Your task to perform on an android device: What's the weather today? Image 0: 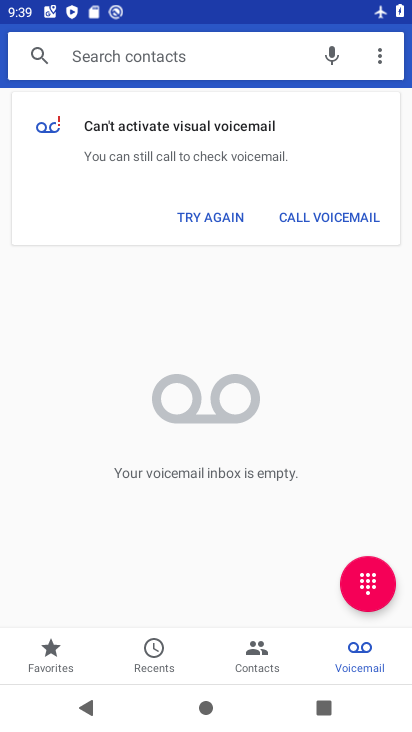
Step 0: press home button
Your task to perform on an android device: What's the weather today? Image 1: 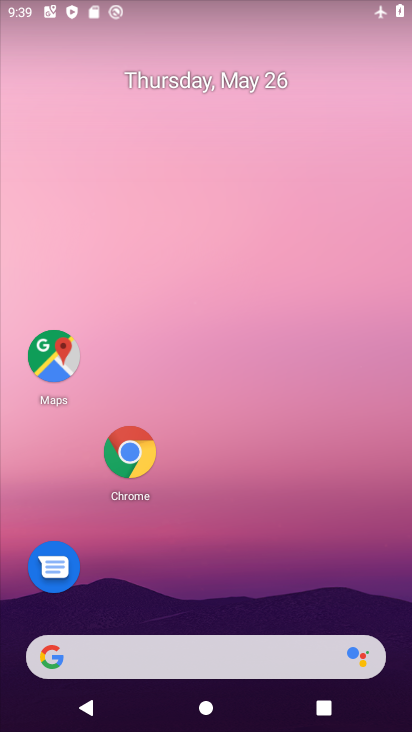
Step 1: click (56, 661)
Your task to perform on an android device: What's the weather today? Image 2: 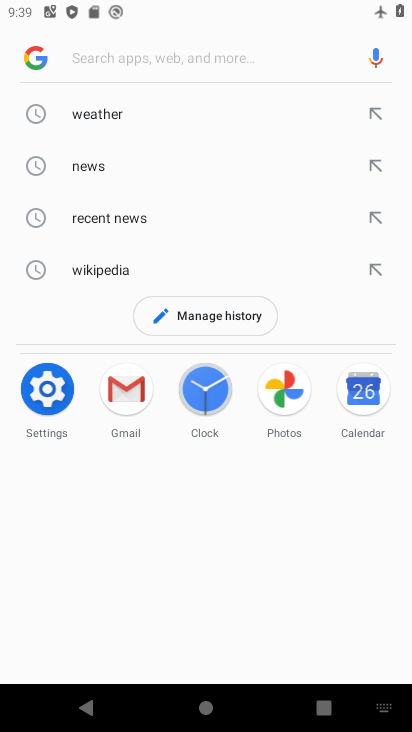
Step 2: click (113, 109)
Your task to perform on an android device: What's the weather today? Image 3: 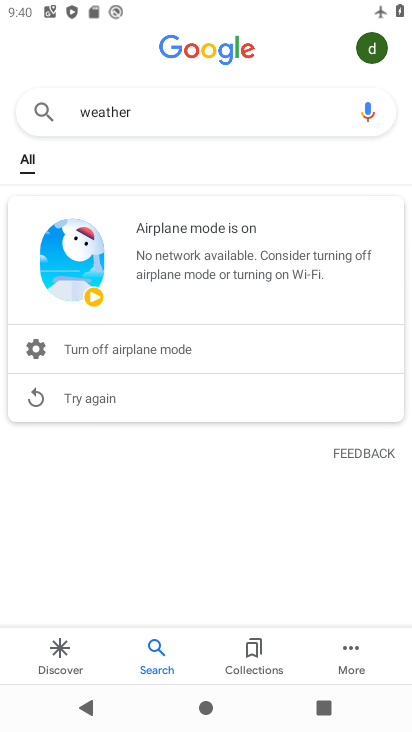
Step 3: press home button
Your task to perform on an android device: What's the weather today? Image 4: 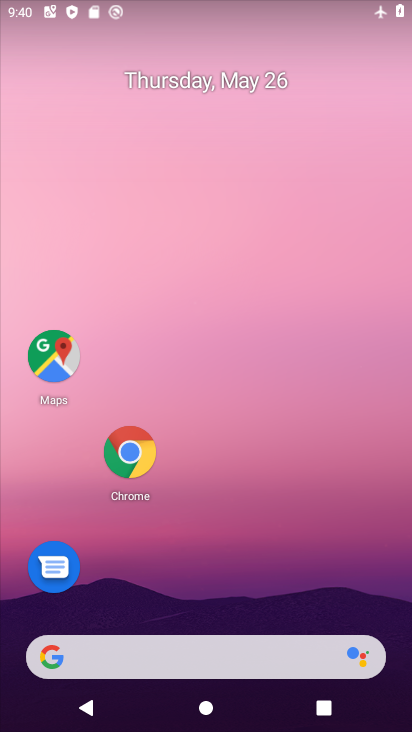
Step 4: drag from (152, 641) to (327, 64)
Your task to perform on an android device: What's the weather today? Image 5: 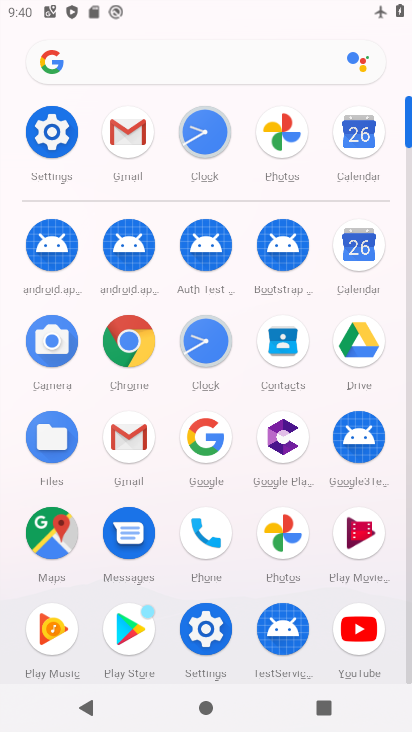
Step 5: click (54, 136)
Your task to perform on an android device: What's the weather today? Image 6: 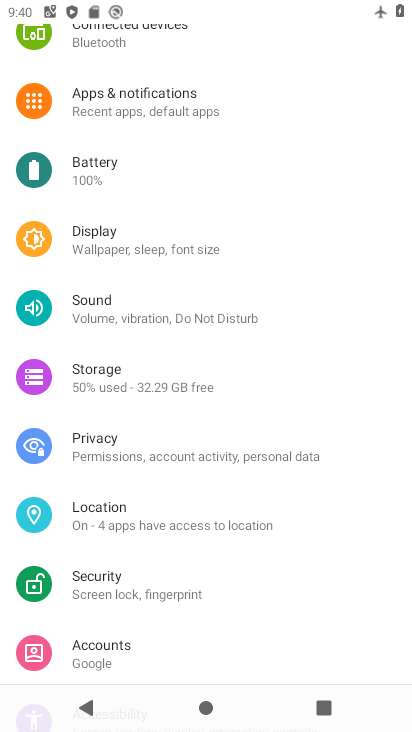
Step 6: drag from (331, 91) to (346, 544)
Your task to perform on an android device: What's the weather today? Image 7: 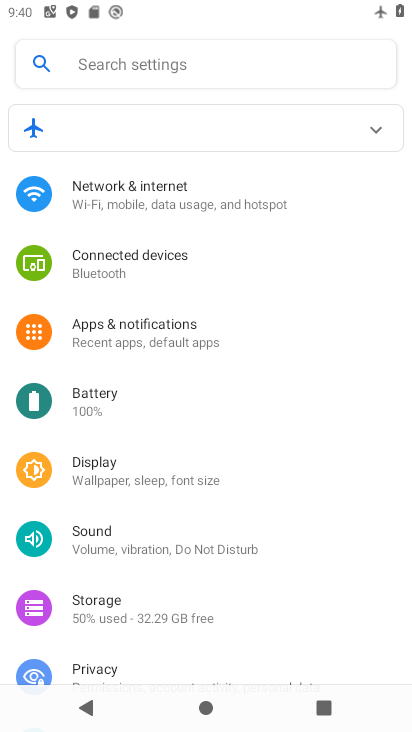
Step 7: click (221, 197)
Your task to perform on an android device: What's the weather today? Image 8: 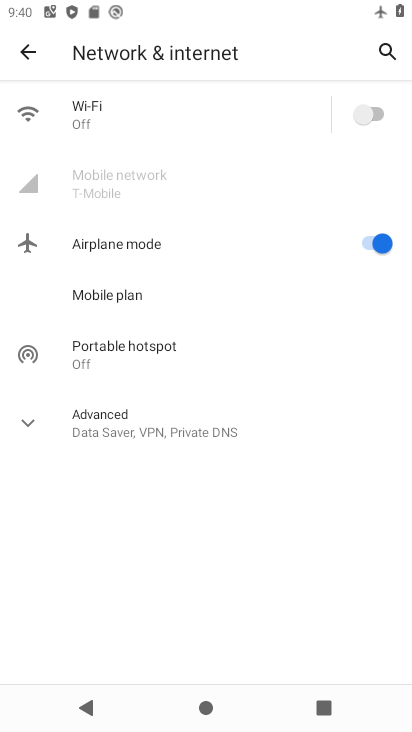
Step 8: click (368, 109)
Your task to perform on an android device: What's the weather today? Image 9: 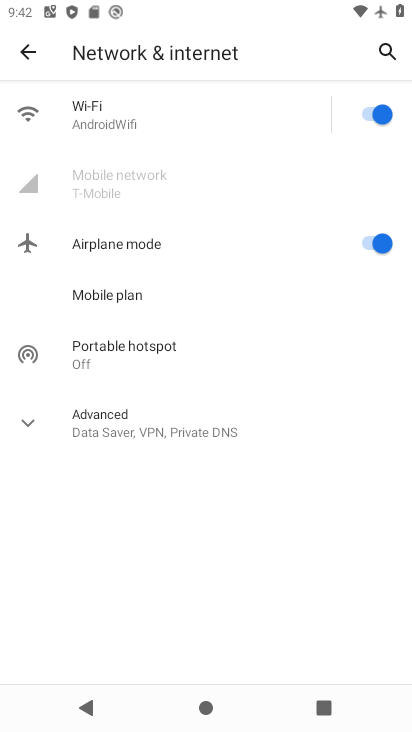
Step 9: task complete